Your task to perform on an android device: toggle translation in the chrome app Image 0: 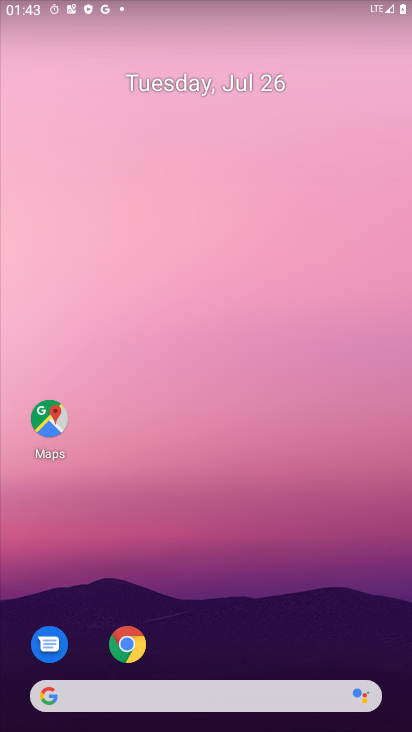
Step 0: click (131, 653)
Your task to perform on an android device: toggle translation in the chrome app Image 1: 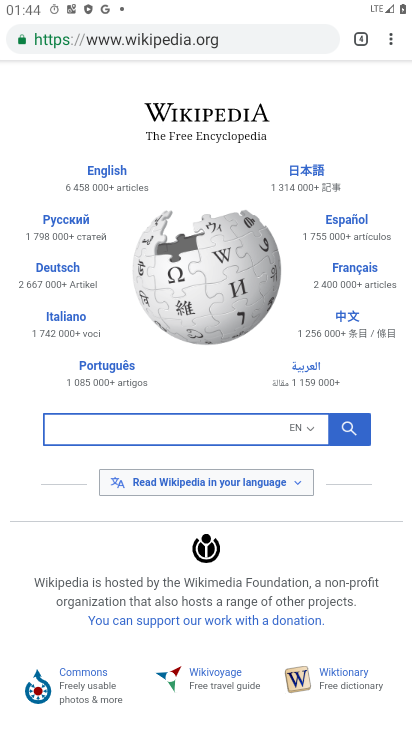
Step 1: click (393, 41)
Your task to perform on an android device: toggle translation in the chrome app Image 2: 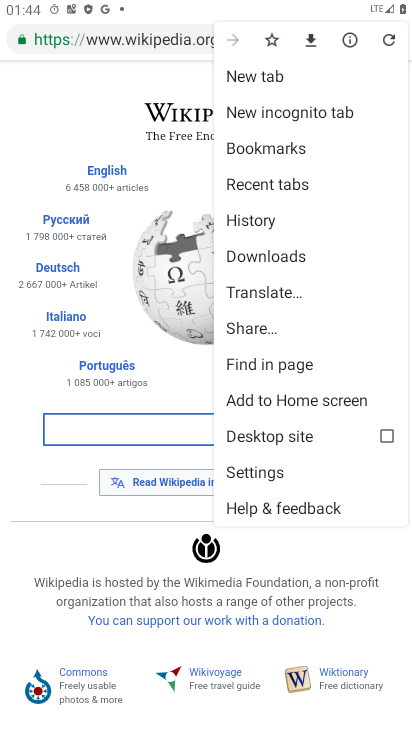
Step 2: click (258, 473)
Your task to perform on an android device: toggle translation in the chrome app Image 3: 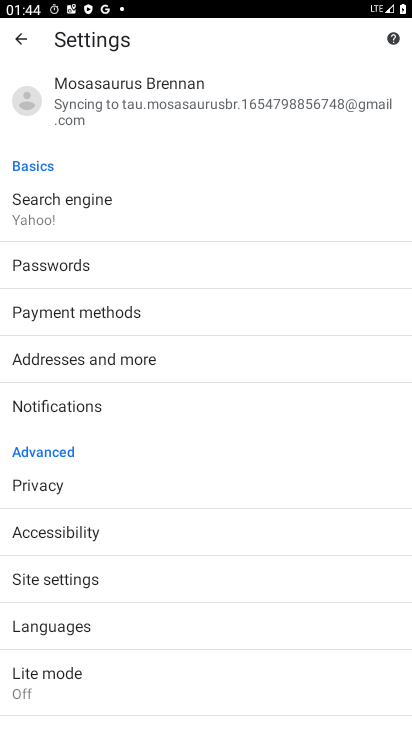
Step 3: click (72, 624)
Your task to perform on an android device: toggle translation in the chrome app Image 4: 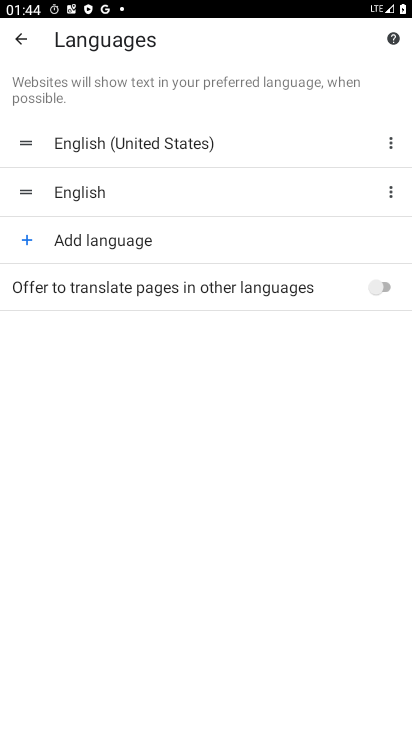
Step 4: click (379, 290)
Your task to perform on an android device: toggle translation in the chrome app Image 5: 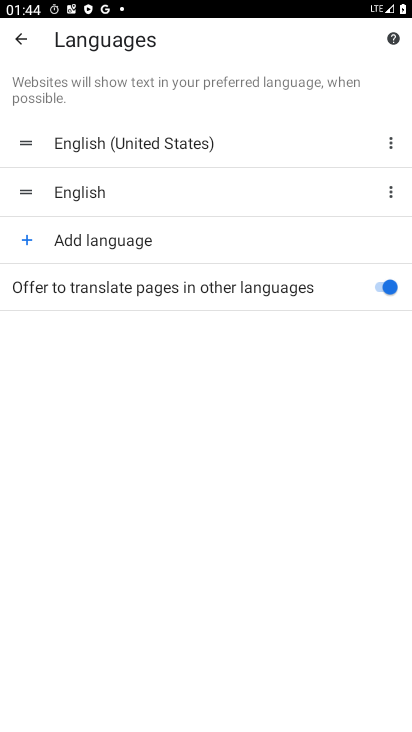
Step 5: task complete